Your task to perform on an android device: manage bookmarks in the chrome app Image 0: 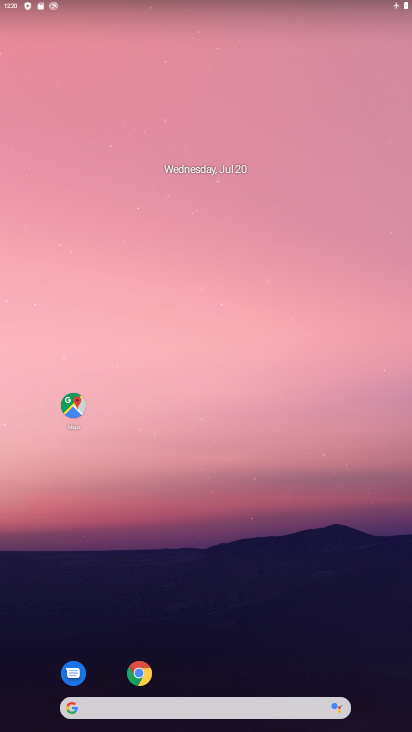
Step 0: drag from (241, 658) to (165, 71)
Your task to perform on an android device: manage bookmarks in the chrome app Image 1: 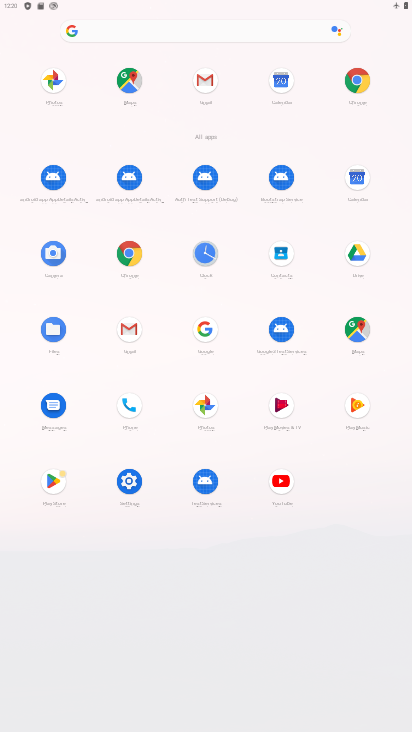
Step 1: click (361, 83)
Your task to perform on an android device: manage bookmarks in the chrome app Image 2: 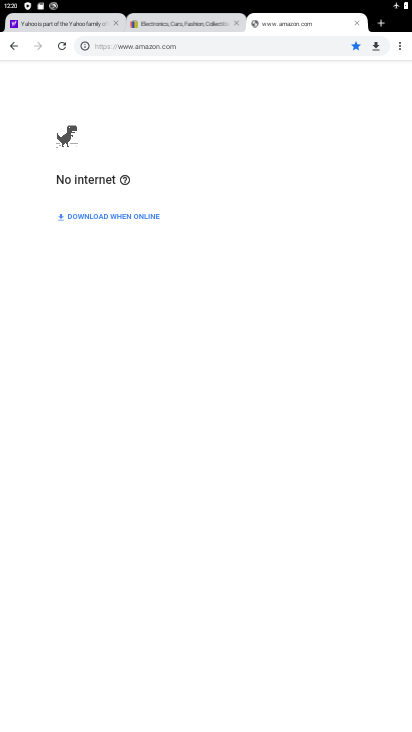
Step 2: click (405, 38)
Your task to perform on an android device: manage bookmarks in the chrome app Image 3: 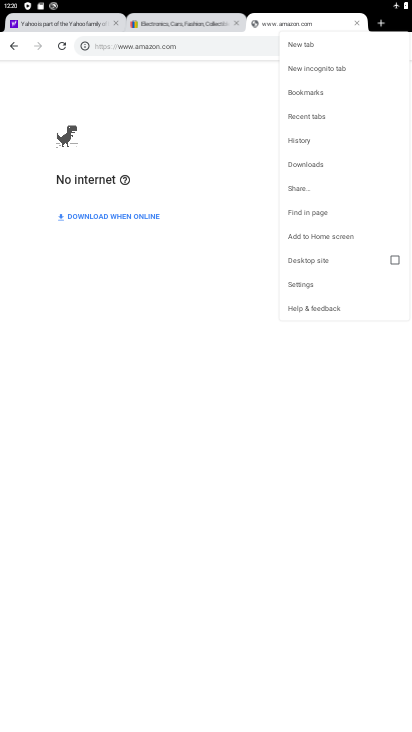
Step 3: click (331, 92)
Your task to perform on an android device: manage bookmarks in the chrome app Image 4: 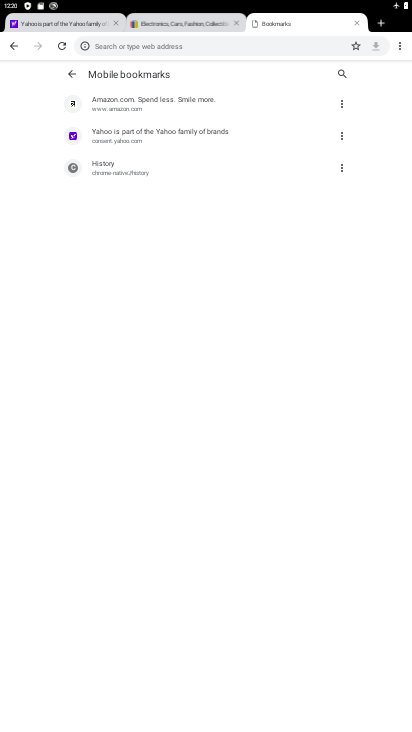
Step 4: click (199, 131)
Your task to perform on an android device: manage bookmarks in the chrome app Image 5: 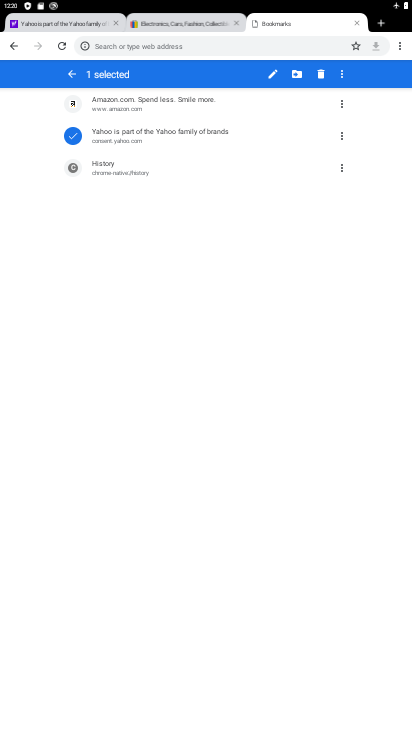
Step 5: click (299, 78)
Your task to perform on an android device: manage bookmarks in the chrome app Image 6: 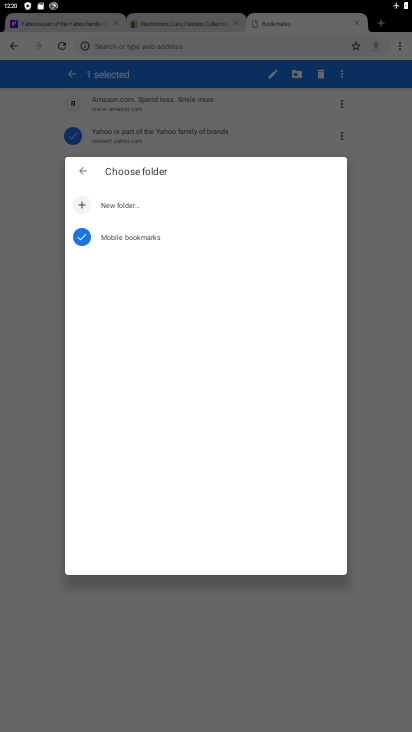
Step 6: click (251, 229)
Your task to perform on an android device: manage bookmarks in the chrome app Image 7: 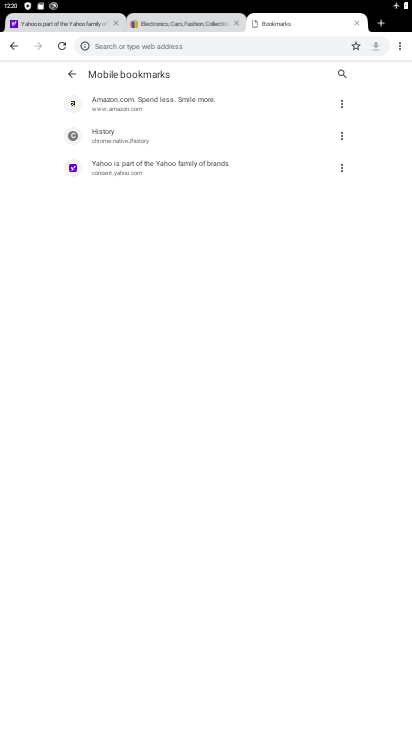
Step 7: task complete